Your task to perform on an android device: Go to Reddit.com Image 0: 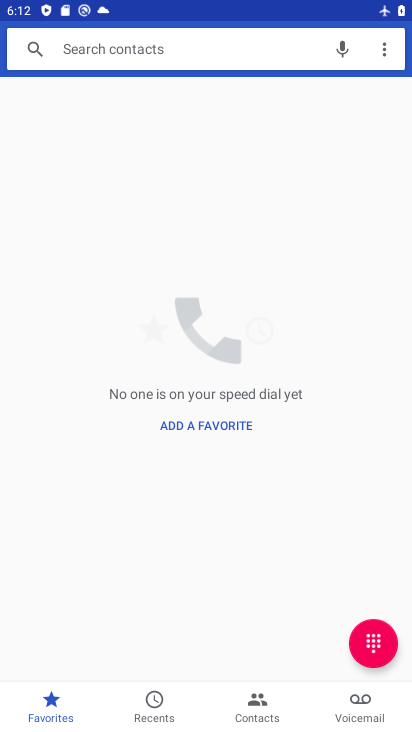
Step 0: press home button
Your task to perform on an android device: Go to Reddit.com Image 1: 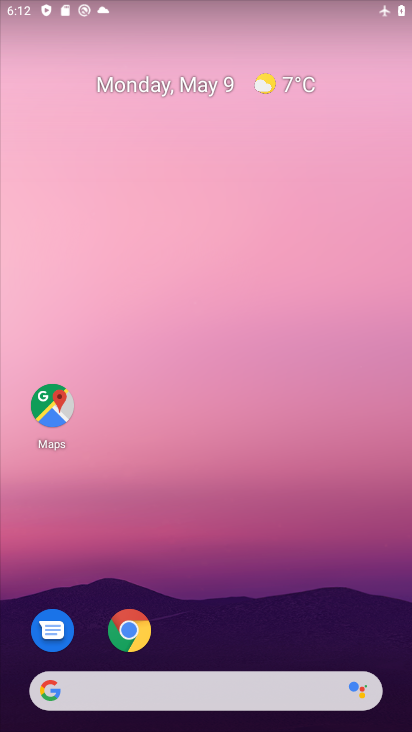
Step 1: click (129, 642)
Your task to perform on an android device: Go to Reddit.com Image 2: 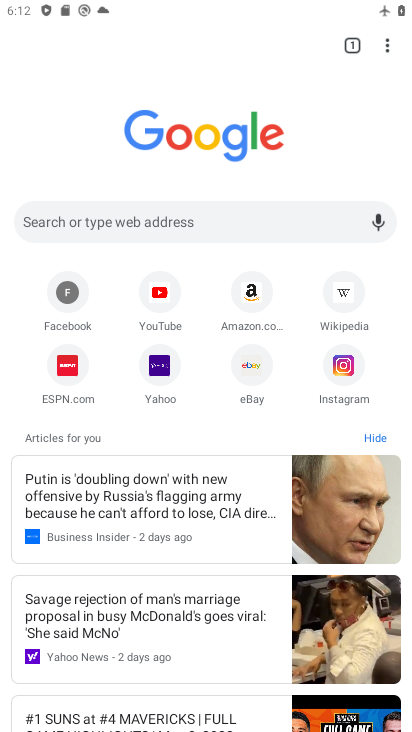
Step 2: click (157, 220)
Your task to perform on an android device: Go to Reddit.com Image 3: 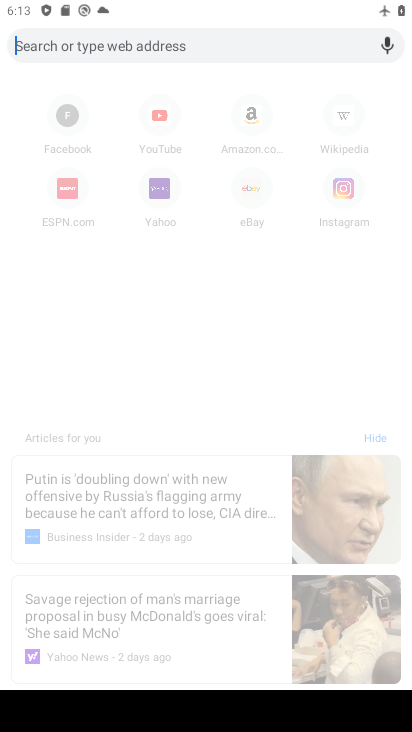
Step 3: type "www.reddit.com"
Your task to perform on an android device: Go to Reddit.com Image 4: 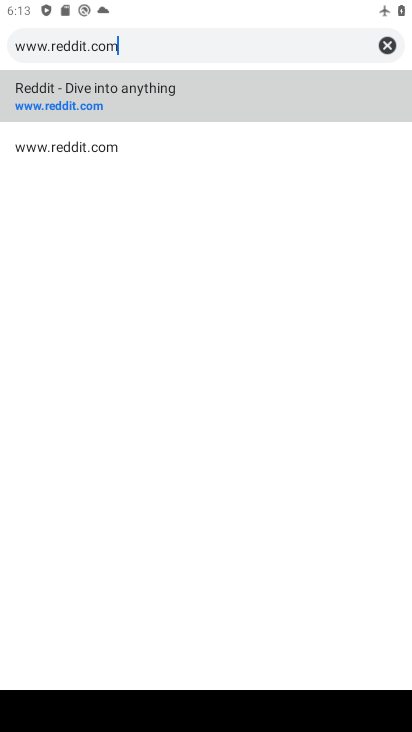
Step 4: click (27, 96)
Your task to perform on an android device: Go to Reddit.com Image 5: 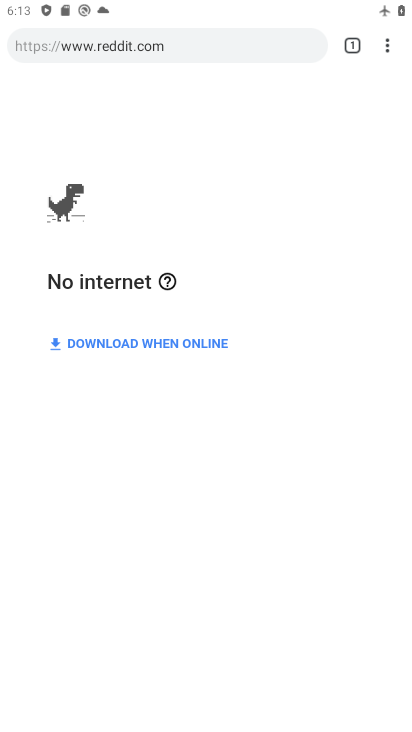
Step 5: task complete